Your task to perform on an android device: Open wifi settings Image 0: 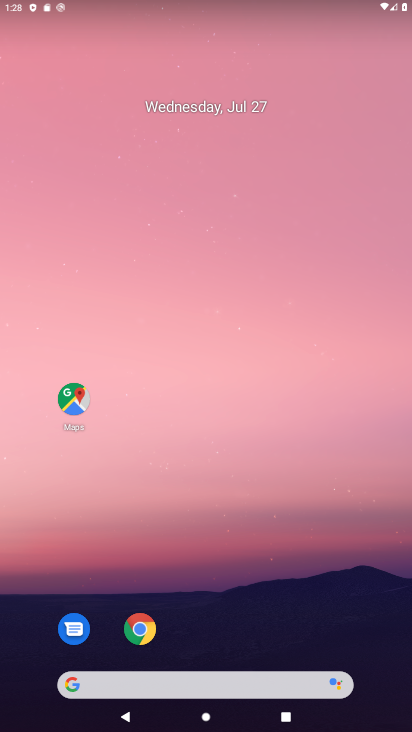
Step 0: press home button
Your task to perform on an android device: Open wifi settings Image 1: 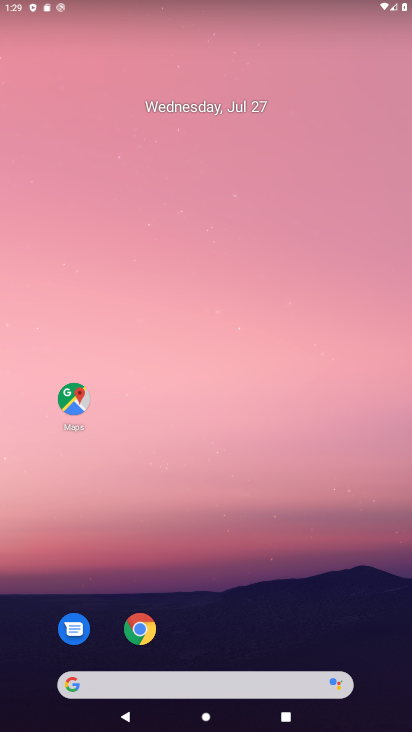
Step 1: drag from (291, 642) to (292, 0)
Your task to perform on an android device: Open wifi settings Image 2: 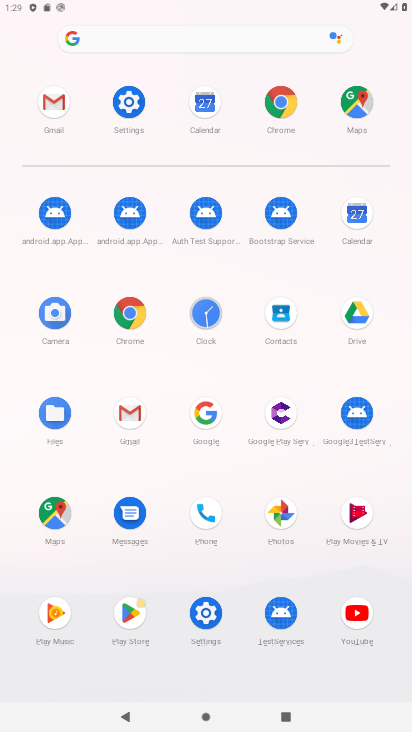
Step 2: click (125, 94)
Your task to perform on an android device: Open wifi settings Image 3: 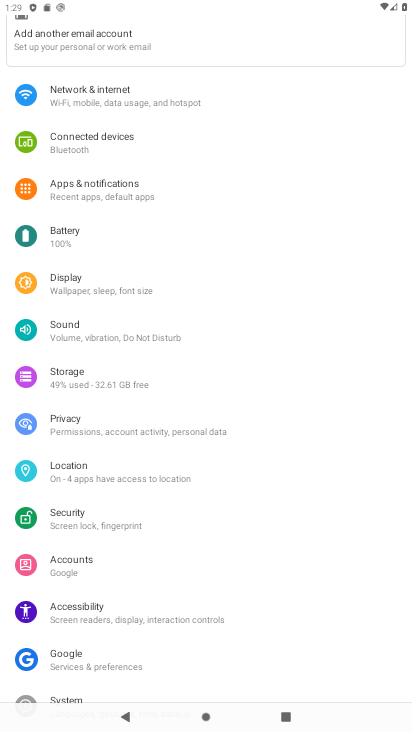
Step 3: click (89, 95)
Your task to perform on an android device: Open wifi settings Image 4: 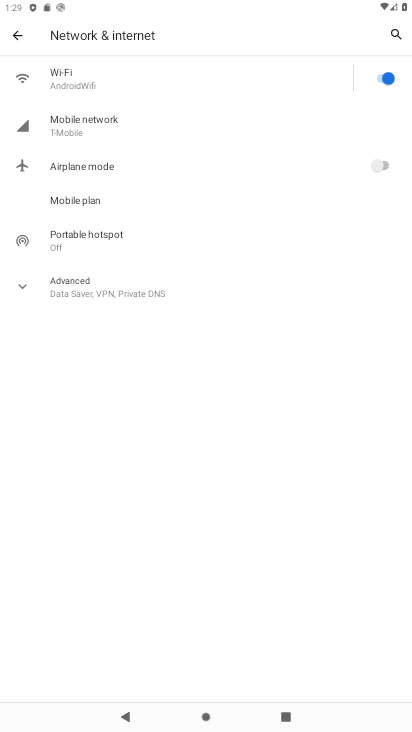
Step 4: click (58, 87)
Your task to perform on an android device: Open wifi settings Image 5: 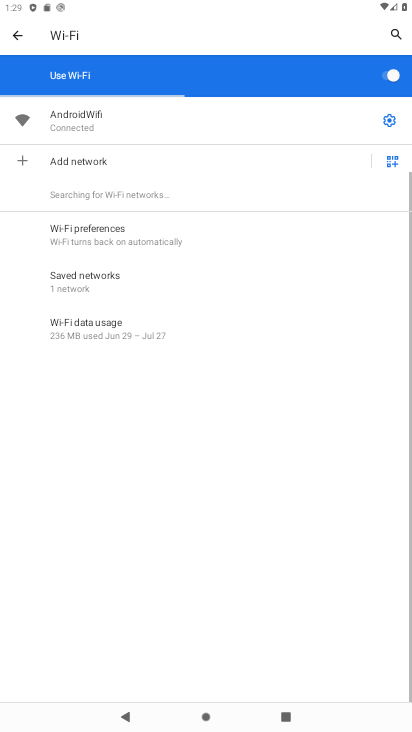
Step 5: task complete